Your task to perform on an android device: toggle airplane mode Image 0: 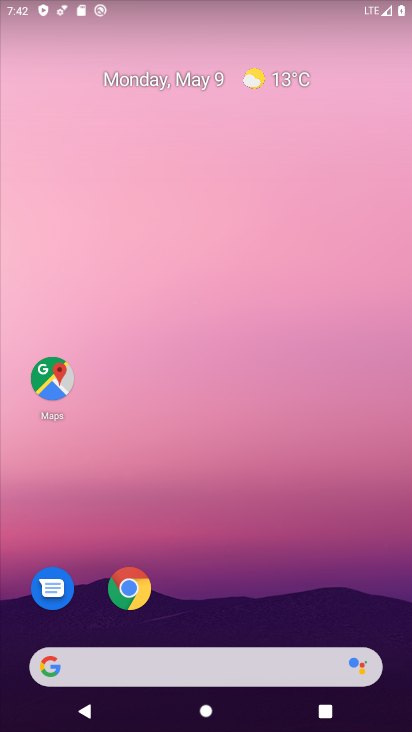
Step 0: drag from (295, 622) to (262, 298)
Your task to perform on an android device: toggle airplane mode Image 1: 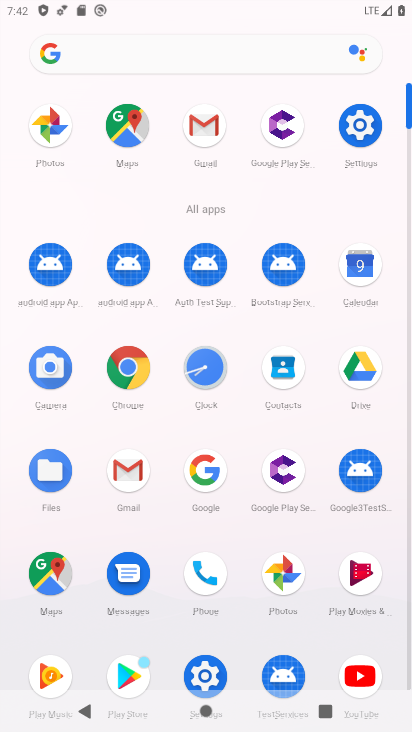
Step 1: click (364, 152)
Your task to perform on an android device: toggle airplane mode Image 2: 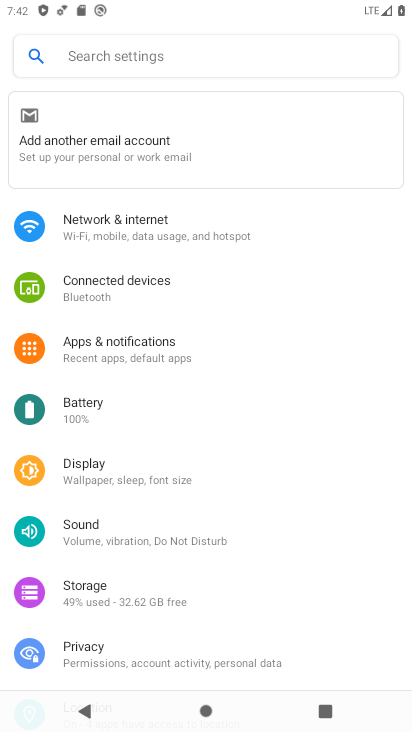
Step 2: click (221, 252)
Your task to perform on an android device: toggle airplane mode Image 3: 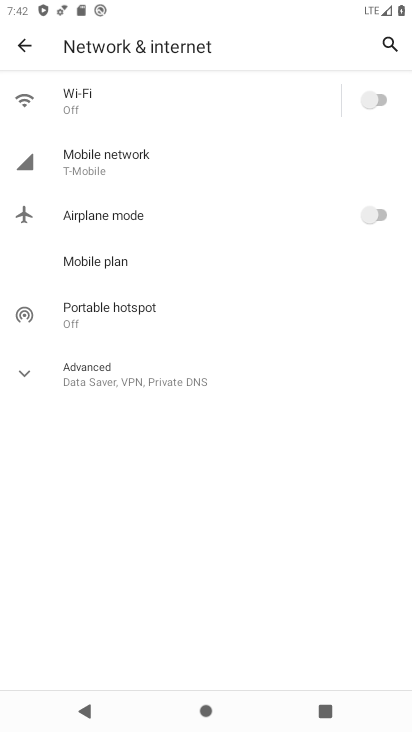
Step 3: click (389, 220)
Your task to perform on an android device: toggle airplane mode Image 4: 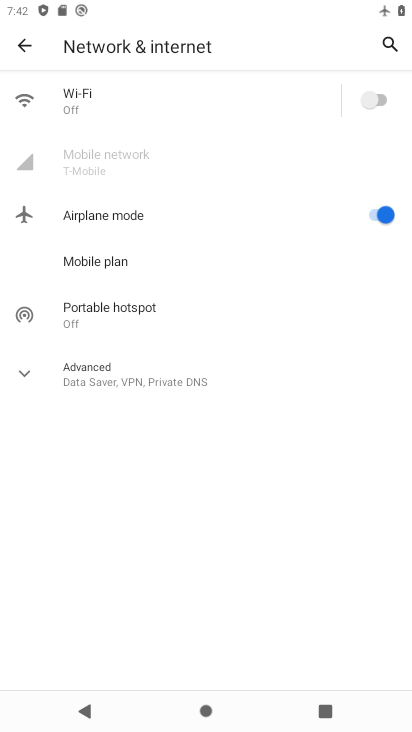
Step 4: task complete